Your task to perform on an android device: Search for seafood restaurants on Google Maps Image 0: 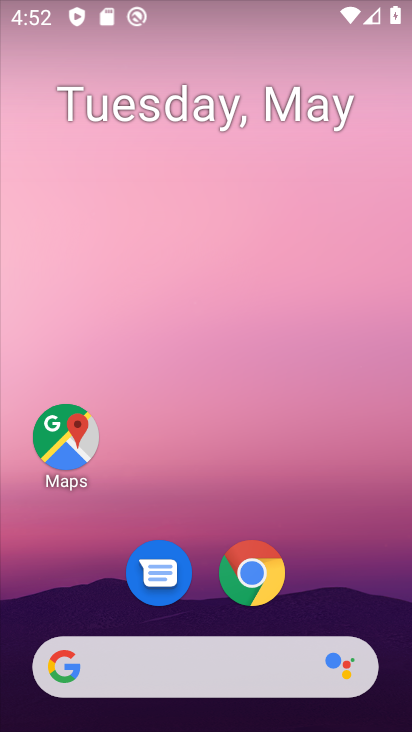
Step 0: click (62, 430)
Your task to perform on an android device: Search for seafood restaurants on Google Maps Image 1: 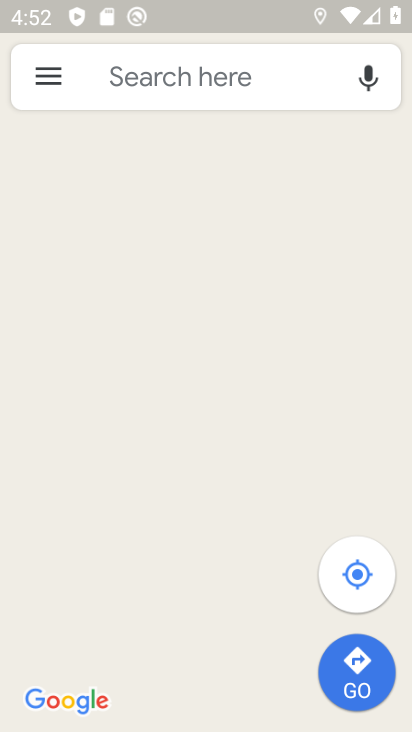
Step 1: click (269, 79)
Your task to perform on an android device: Search for seafood restaurants on Google Maps Image 2: 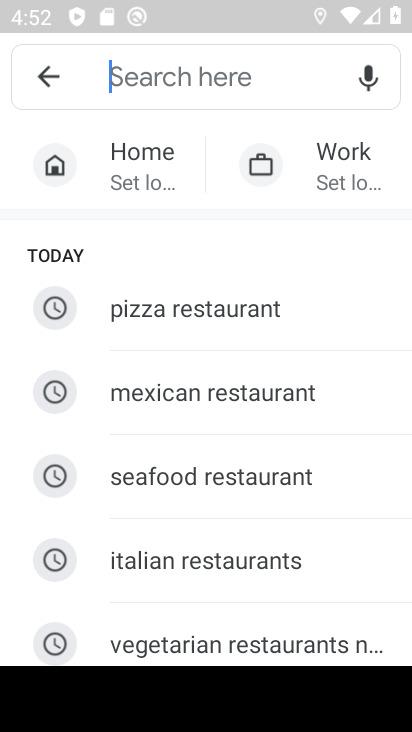
Step 2: type "seafood"
Your task to perform on an android device: Search for seafood restaurants on Google Maps Image 3: 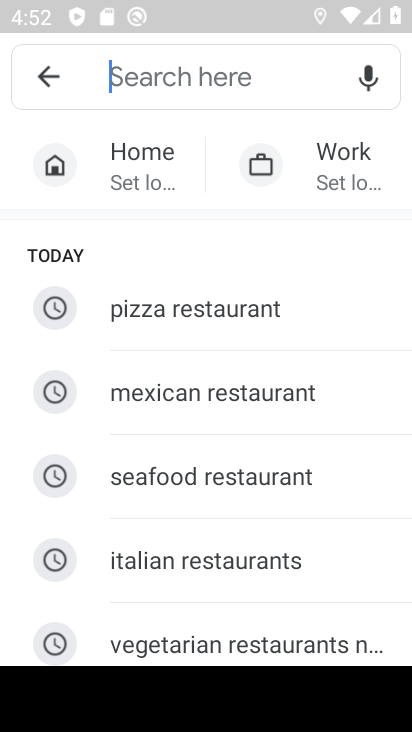
Step 3: click (221, 476)
Your task to perform on an android device: Search for seafood restaurants on Google Maps Image 4: 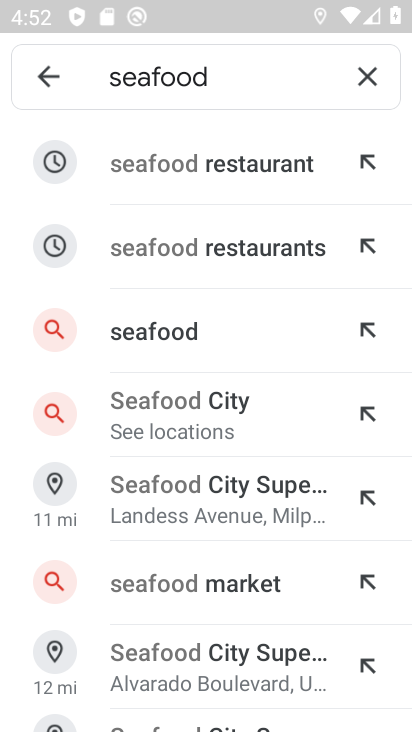
Step 4: click (171, 352)
Your task to perform on an android device: Search for seafood restaurants on Google Maps Image 5: 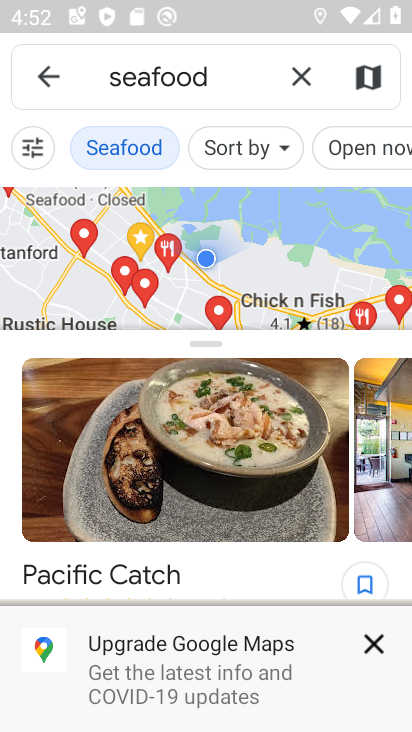
Step 5: task complete